Your task to perform on an android device: Open Chrome and go to settings Image 0: 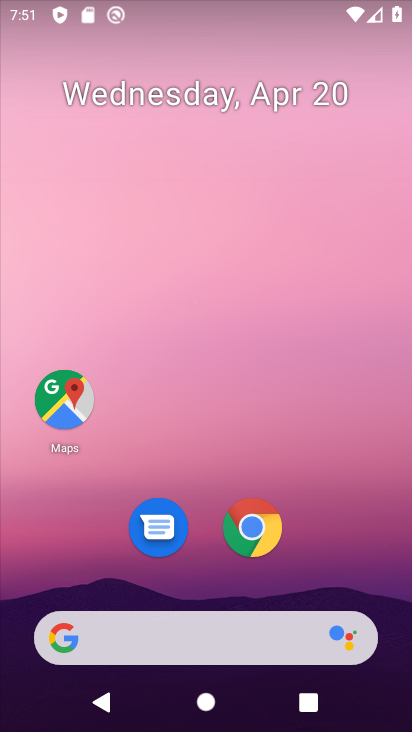
Step 0: click (253, 533)
Your task to perform on an android device: Open Chrome and go to settings Image 1: 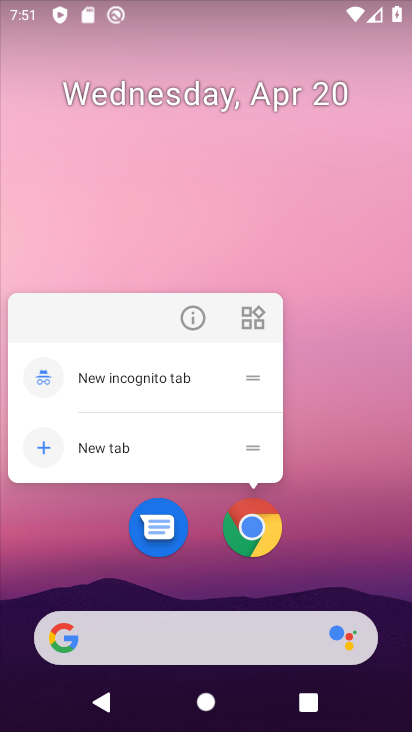
Step 1: click (253, 533)
Your task to perform on an android device: Open Chrome and go to settings Image 2: 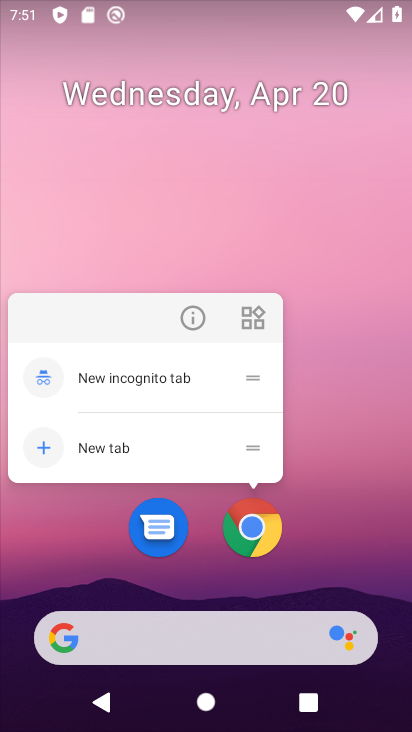
Step 2: click (253, 533)
Your task to perform on an android device: Open Chrome and go to settings Image 3: 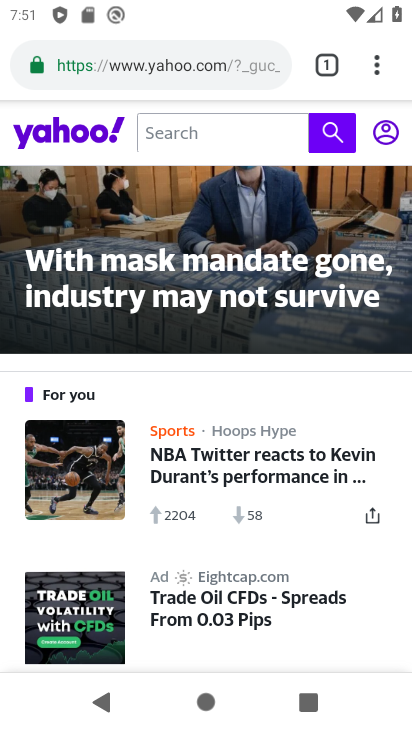
Step 3: click (378, 64)
Your task to perform on an android device: Open Chrome and go to settings Image 4: 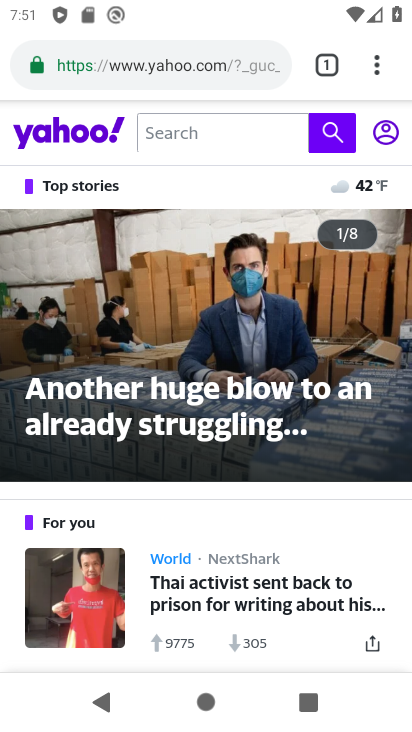
Step 4: click (375, 61)
Your task to perform on an android device: Open Chrome and go to settings Image 5: 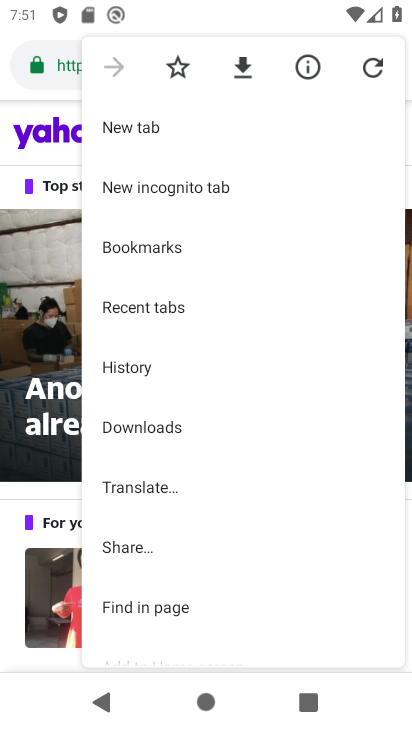
Step 5: drag from (224, 633) to (173, 366)
Your task to perform on an android device: Open Chrome and go to settings Image 6: 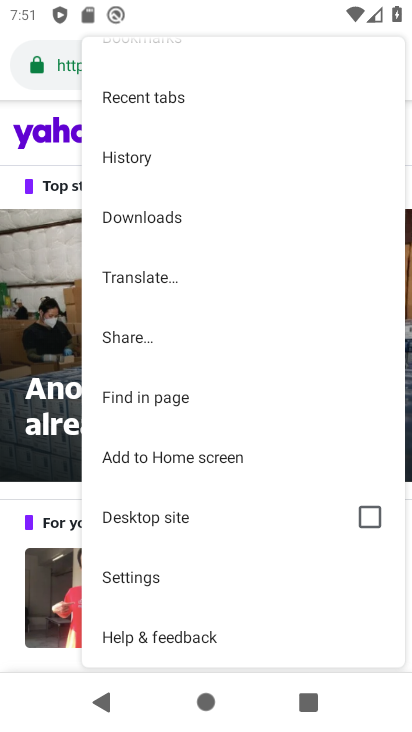
Step 6: click (127, 576)
Your task to perform on an android device: Open Chrome and go to settings Image 7: 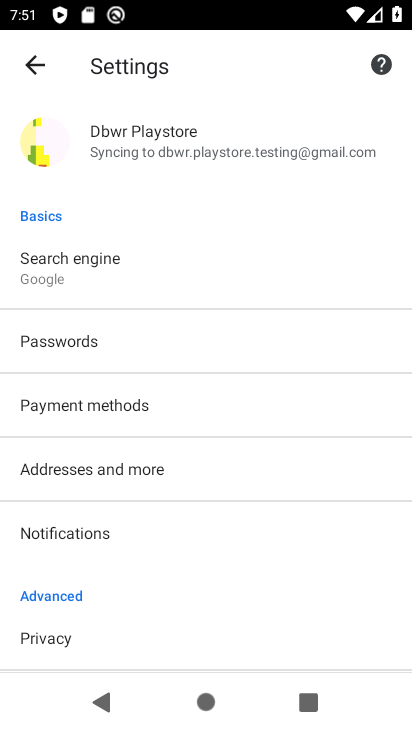
Step 7: task complete